Your task to perform on an android device: Go to battery settings Image 0: 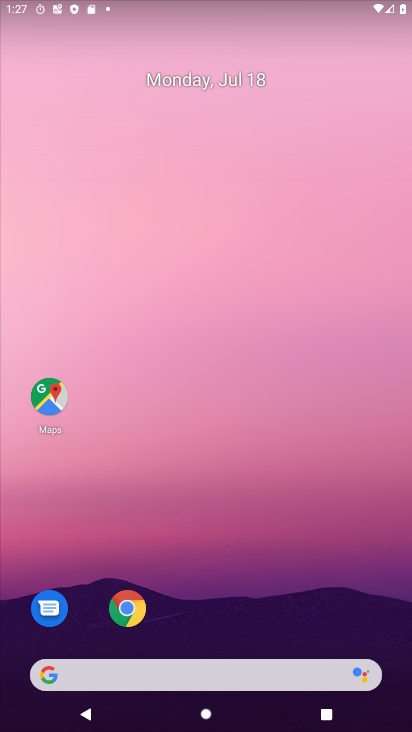
Step 0: drag from (235, 723) to (207, 235)
Your task to perform on an android device: Go to battery settings Image 1: 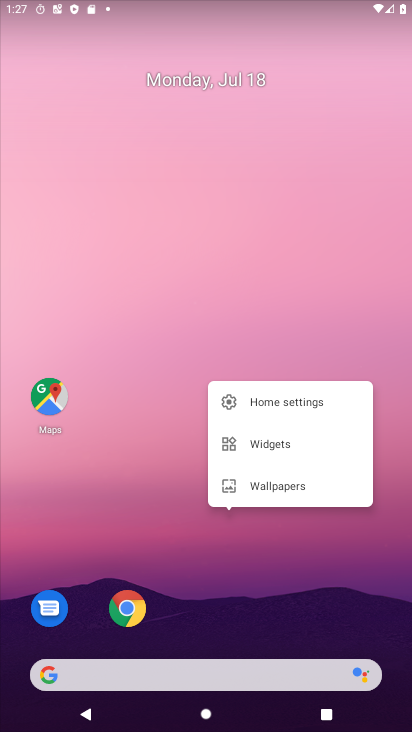
Step 1: click (239, 319)
Your task to perform on an android device: Go to battery settings Image 2: 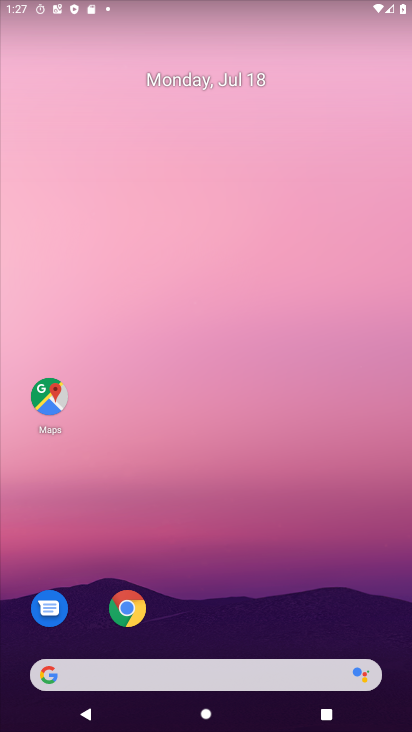
Step 2: drag from (236, 717) to (198, 58)
Your task to perform on an android device: Go to battery settings Image 3: 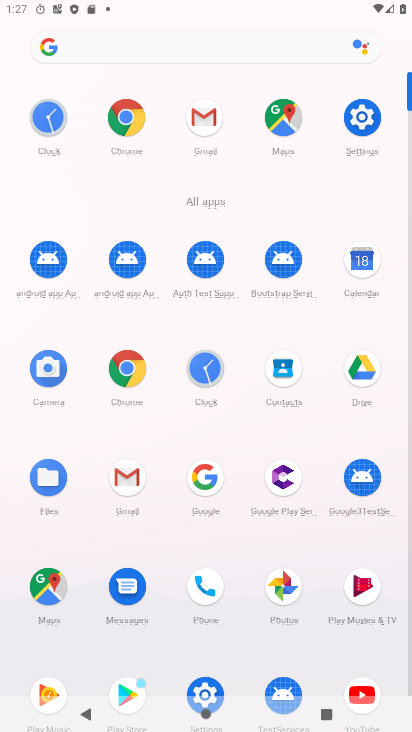
Step 3: click (360, 123)
Your task to perform on an android device: Go to battery settings Image 4: 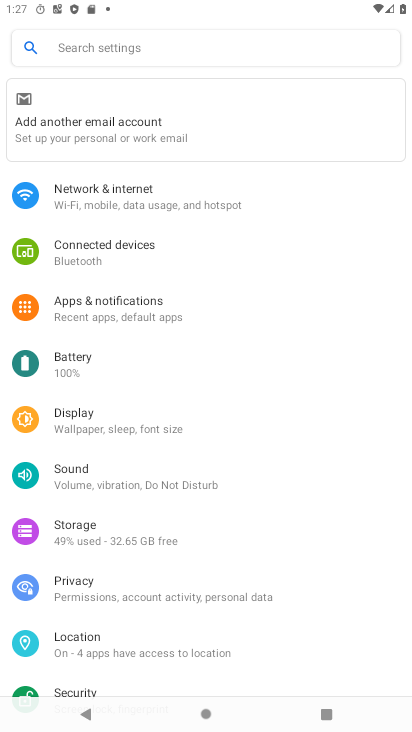
Step 4: click (67, 369)
Your task to perform on an android device: Go to battery settings Image 5: 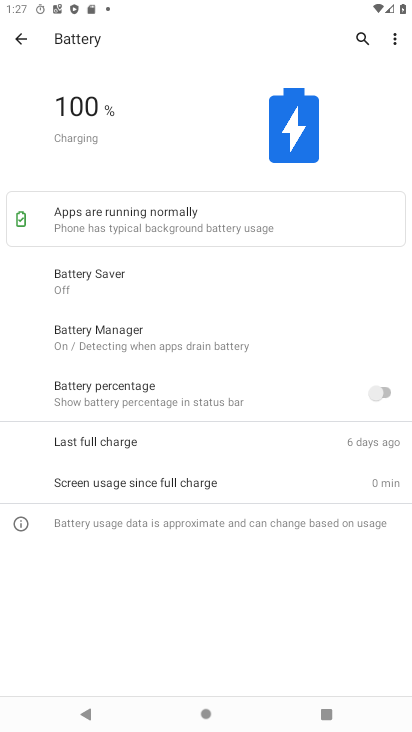
Step 5: task complete